Your task to perform on an android device: Open Youtube and go to "Your channel" Image 0: 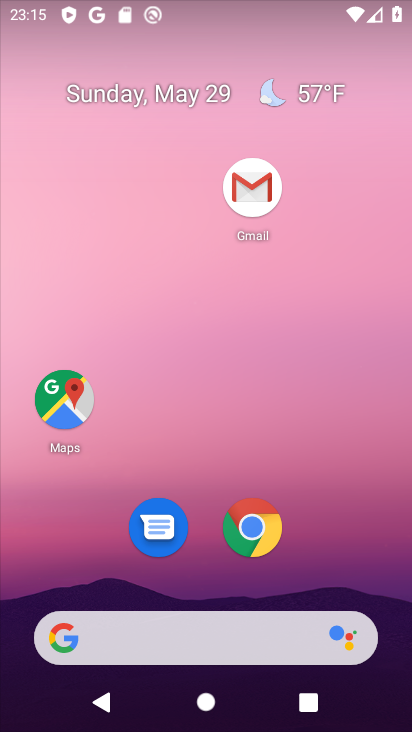
Step 0: drag from (323, 544) to (319, 18)
Your task to perform on an android device: Open Youtube and go to "Your channel" Image 1: 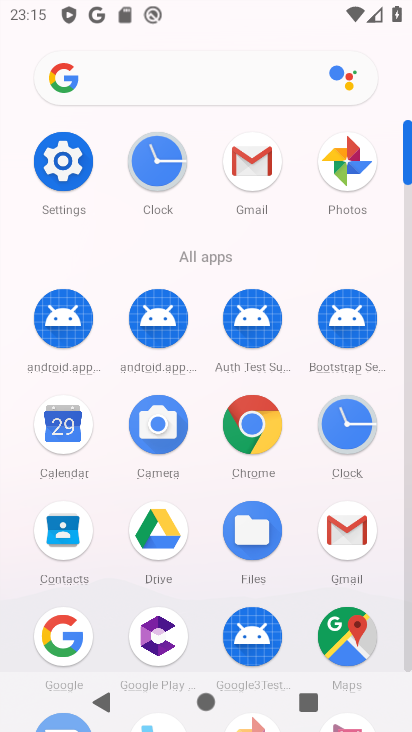
Step 1: drag from (208, 499) to (194, 236)
Your task to perform on an android device: Open Youtube and go to "Your channel" Image 2: 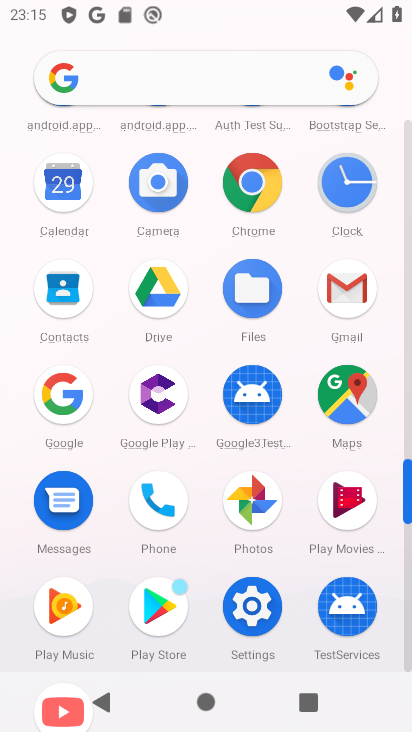
Step 2: drag from (212, 489) to (200, 299)
Your task to perform on an android device: Open Youtube and go to "Your channel" Image 3: 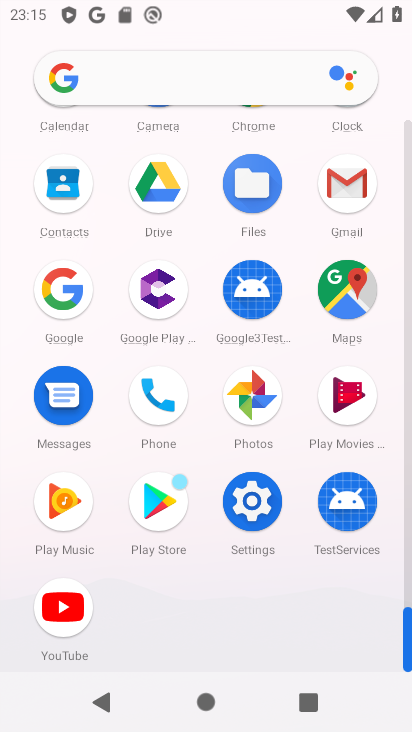
Step 3: click (64, 605)
Your task to perform on an android device: Open Youtube and go to "Your channel" Image 4: 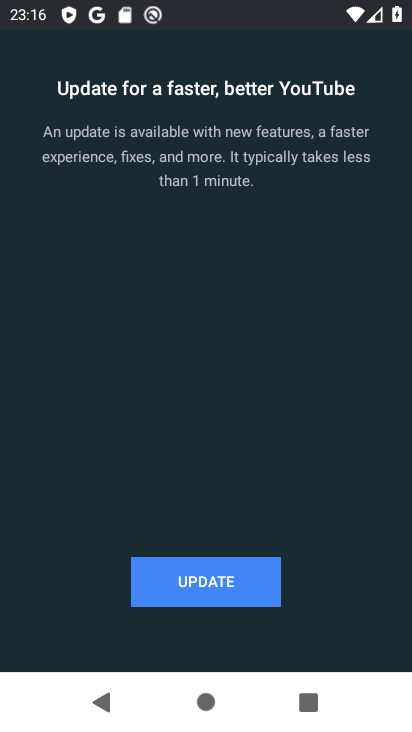
Step 4: click (208, 579)
Your task to perform on an android device: Open Youtube and go to "Your channel" Image 5: 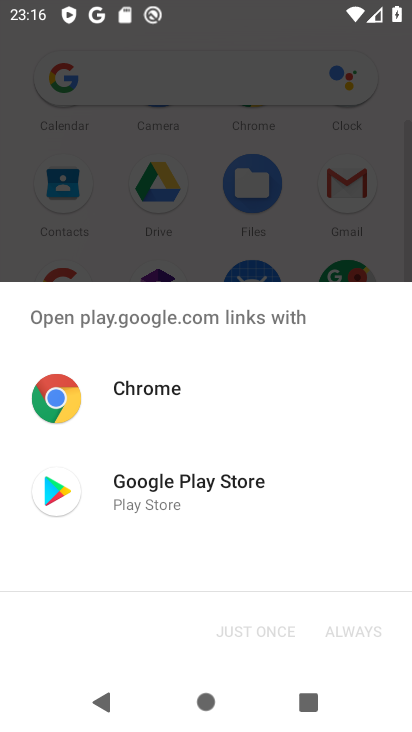
Step 5: click (193, 487)
Your task to perform on an android device: Open Youtube and go to "Your channel" Image 6: 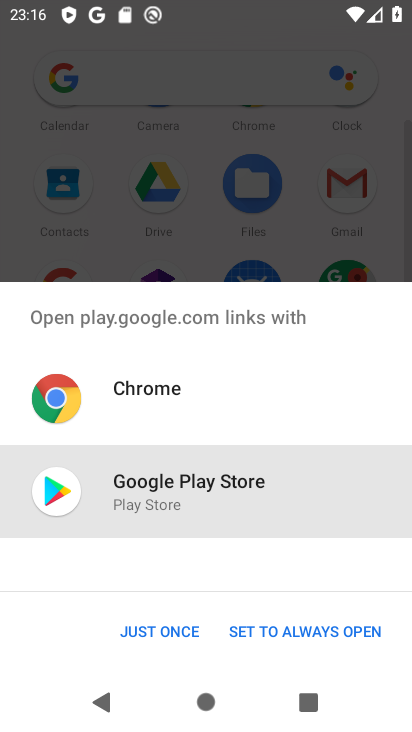
Step 6: click (168, 628)
Your task to perform on an android device: Open Youtube and go to "Your channel" Image 7: 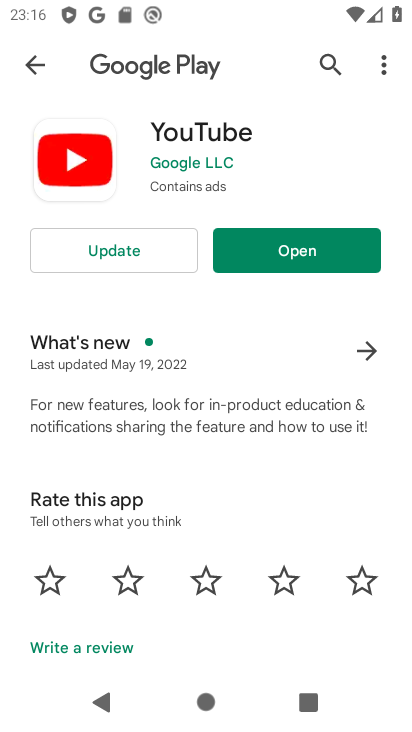
Step 7: click (105, 256)
Your task to perform on an android device: Open Youtube and go to "Your channel" Image 8: 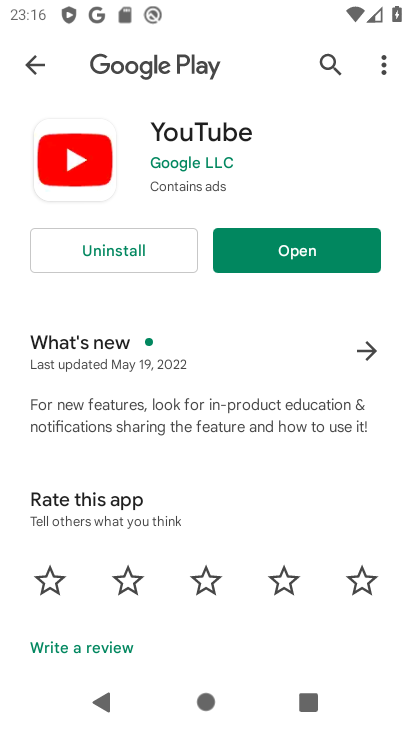
Step 8: click (304, 257)
Your task to perform on an android device: Open Youtube and go to "Your channel" Image 9: 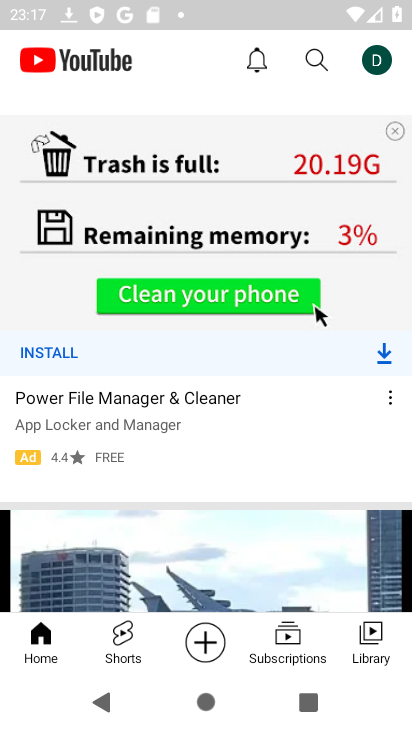
Step 9: click (385, 64)
Your task to perform on an android device: Open Youtube and go to "Your channel" Image 10: 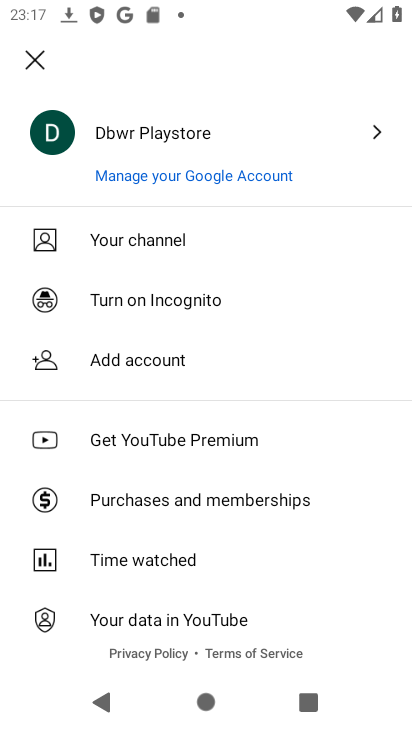
Step 10: click (167, 252)
Your task to perform on an android device: Open Youtube and go to "Your channel" Image 11: 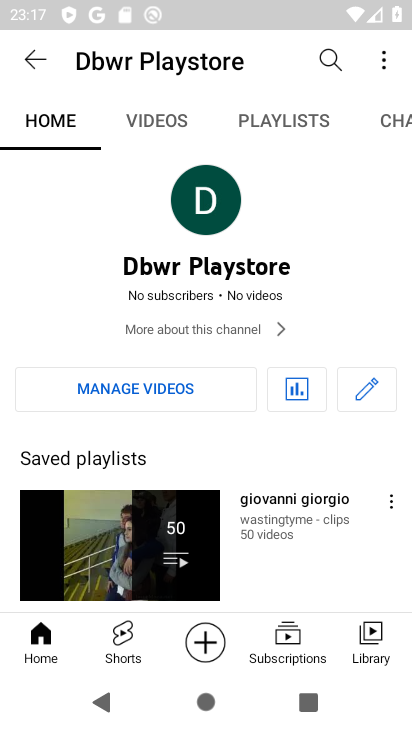
Step 11: task complete